Your task to perform on an android device: see creations saved in the google photos Image 0: 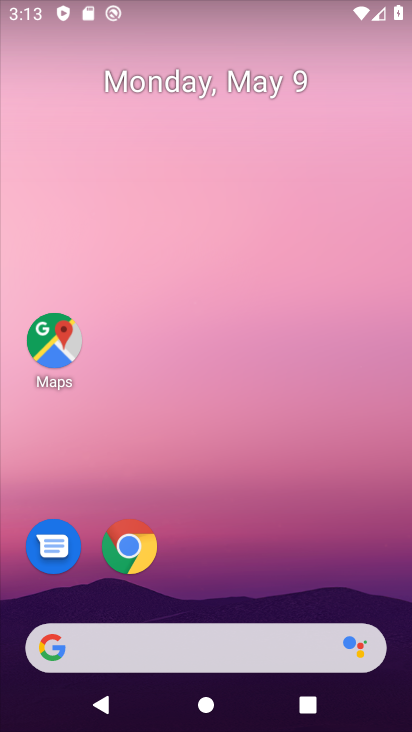
Step 0: drag from (232, 454) to (212, 213)
Your task to perform on an android device: see creations saved in the google photos Image 1: 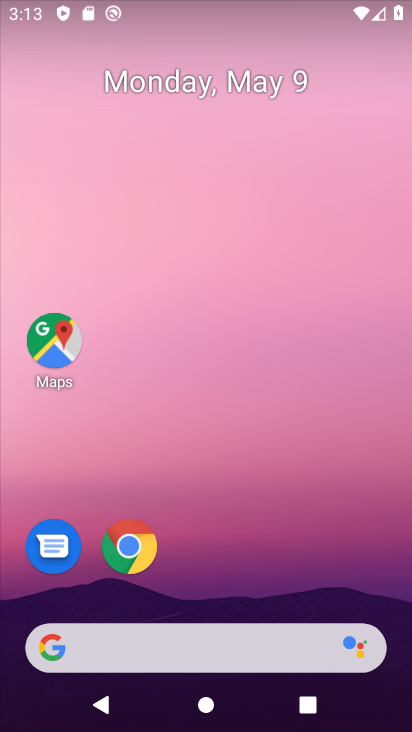
Step 1: drag from (342, 558) to (301, 303)
Your task to perform on an android device: see creations saved in the google photos Image 2: 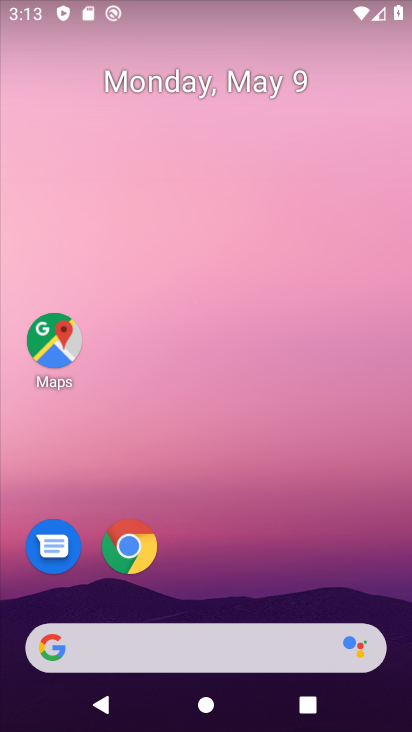
Step 2: drag from (329, 461) to (316, 50)
Your task to perform on an android device: see creations saved in the google photos Image 3: 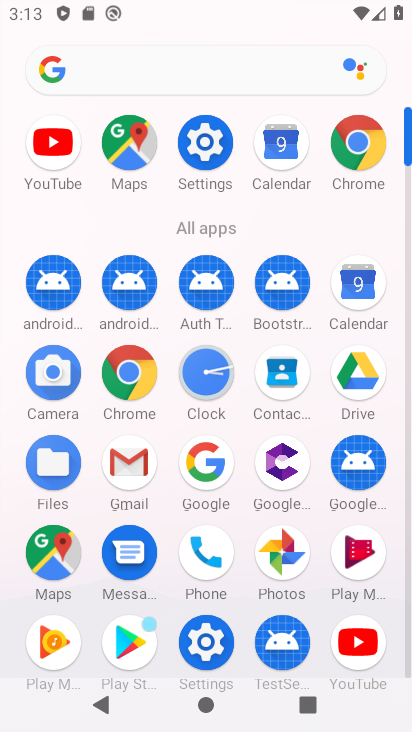
Step 3: click (280, 550)
Your task to perform on an android device: see creations saved in the google photos Image 4: 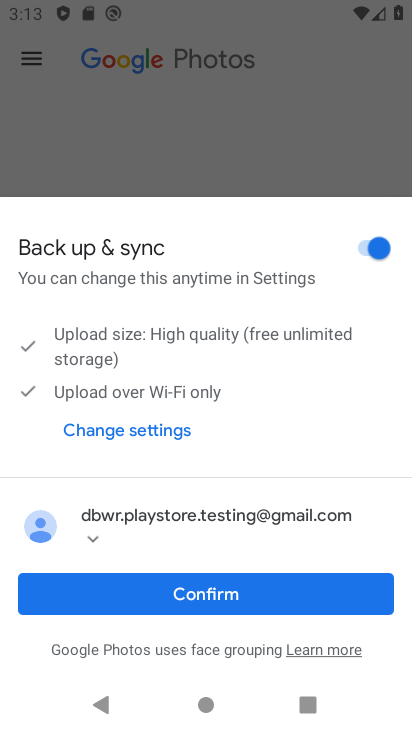
Step 4: click (180, 596)
Your task to perform on an android device: see creations saved in the google photos Image 5: 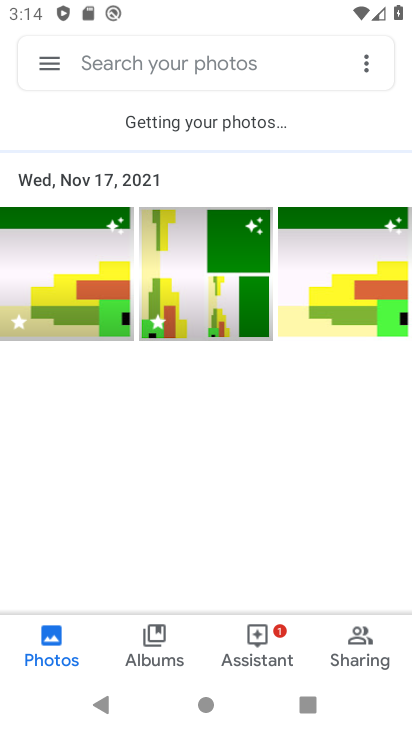
Step 5: click (169, 649)
Your task to perform on an android device: see creations saved in the google photos Image 6: 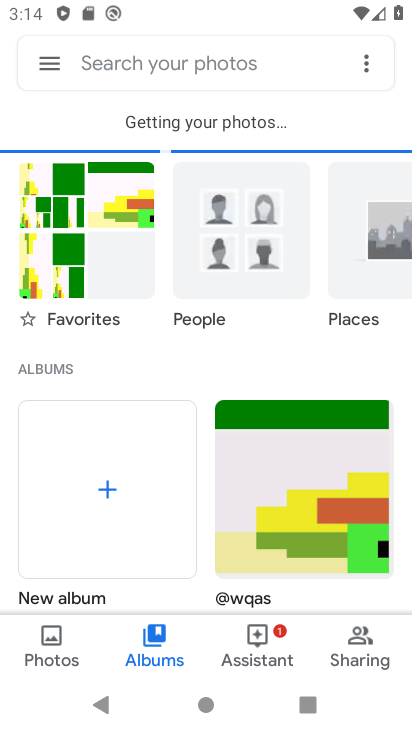
Step 6: task complete